Your task to perform on an android device: Search for Mexican restaurants on Maps Image 0: 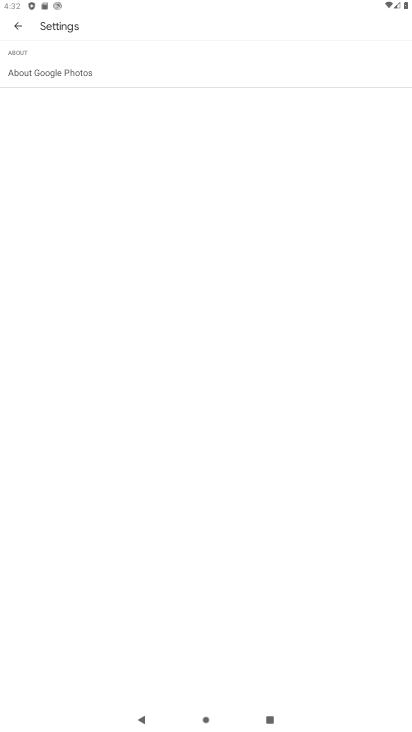
Step 0: press home button
Your task to perform on an android device: Search for Mexican restaurants on Maps Image 1: 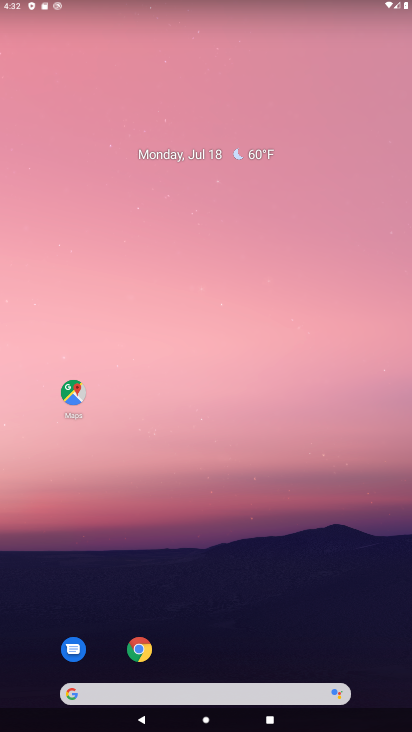
Step 1: click (73, 393)
Your task to perform on an android device: Search for Mexican restaurants on Maps Image 2: 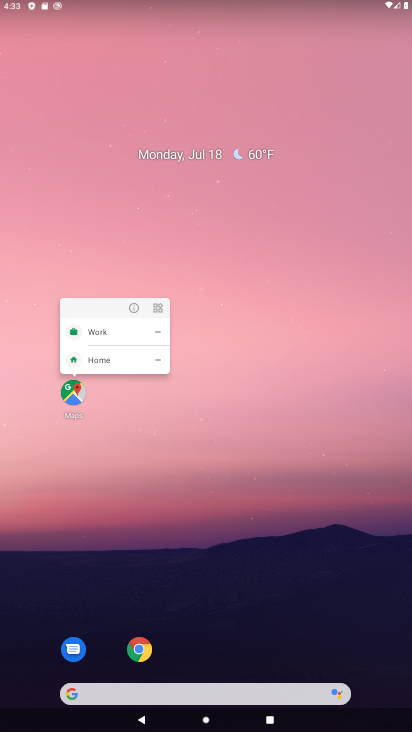
Step 2: click (76, 392)
Your task to perform on an android device: Search for Mexican restaurants on Maps Image 3: 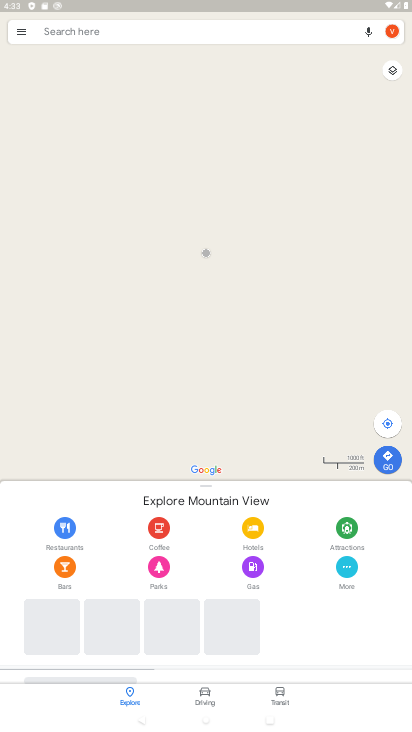
Step 3: click (217, 32)
Your task to perform on an android device: Search for Mexican restaurants on Maps Image 4: 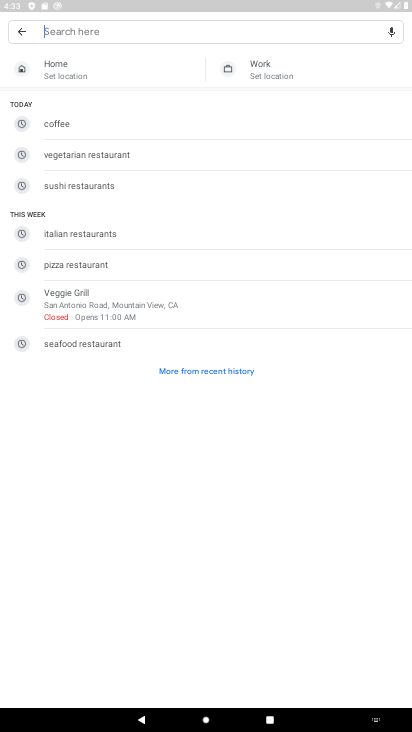
Step 4: type "mexican restaurants"
Your task to perform on an android device: Search for Mexican restaurants on Maps Image 5: 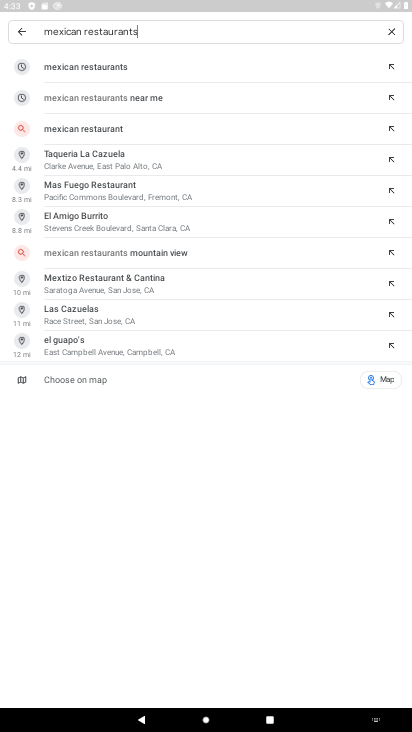
Step 5: click (120, 70)
Your task to perform on an android device: Search for Mexican restaurants on Maps Image 6: 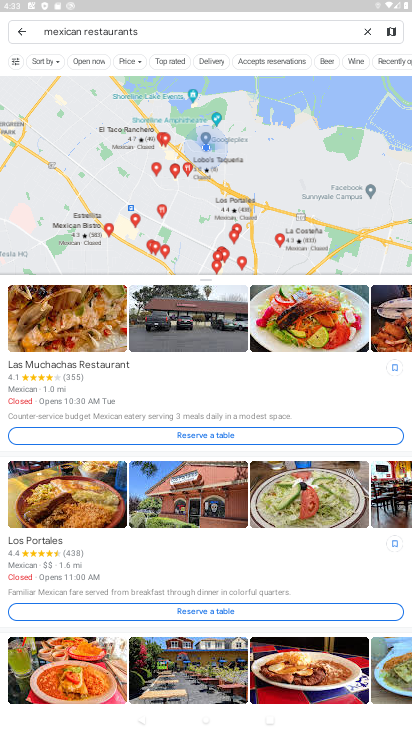
Step 6: task complete